Your task to perform on an android device: Go to CNN.com Image 0: 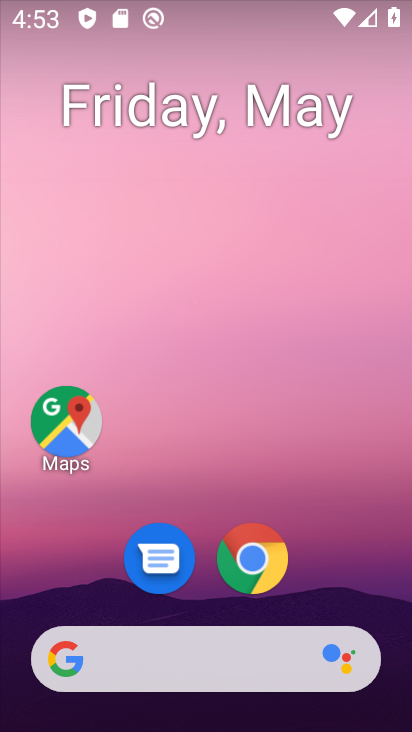
Step 0: click (276, 562)
Your task to perform on an android device: Go to CNN.com Image 1: 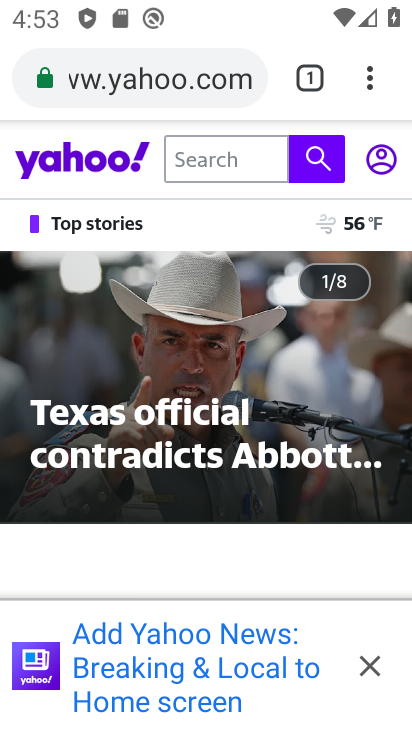
Step 1: click (116, 74)
Your task to perform on an android device: Go to CNN.com Image 2: 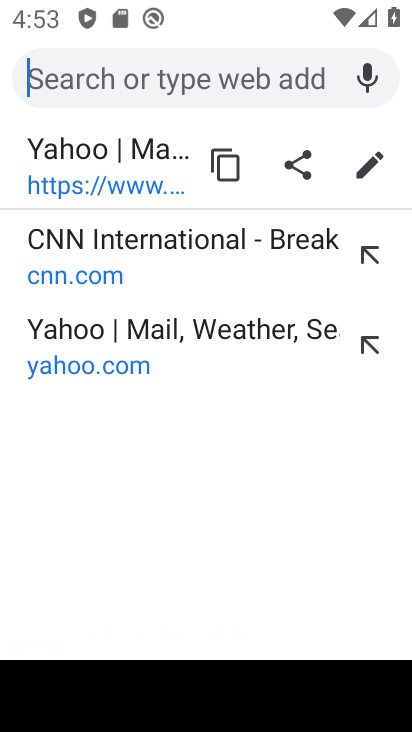
Step 2: click (106, 283)
Your task to perform on an android device: Go to CNN.com Image 3: 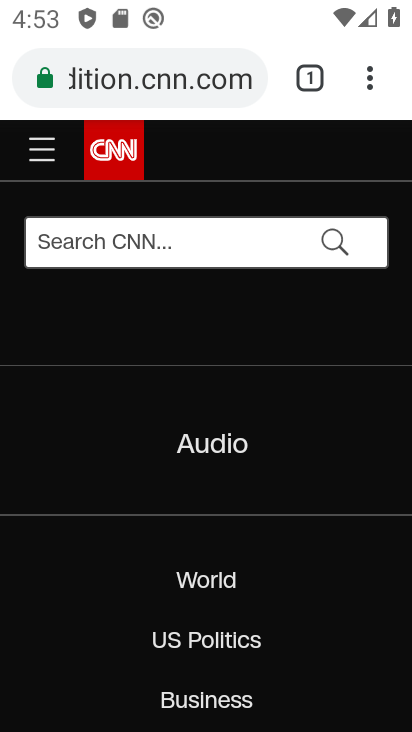
Step 3: task complete